Your task to perform on an android device: toggle improve location accuracy Image 0: 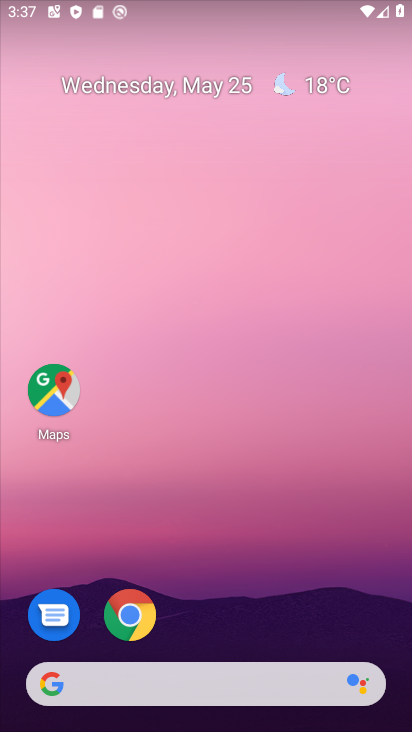
Step 0: drag from (315, 645) to (236, 14)
Your task to perform on an android device: toggle improve location accuracy Image 1: 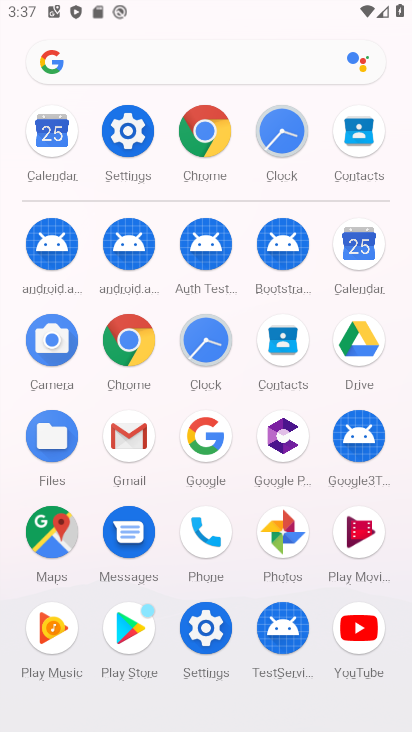
Step 1: click (114, 139)
Your task to perform on an android device: toggle improve location accuracy Image 2: 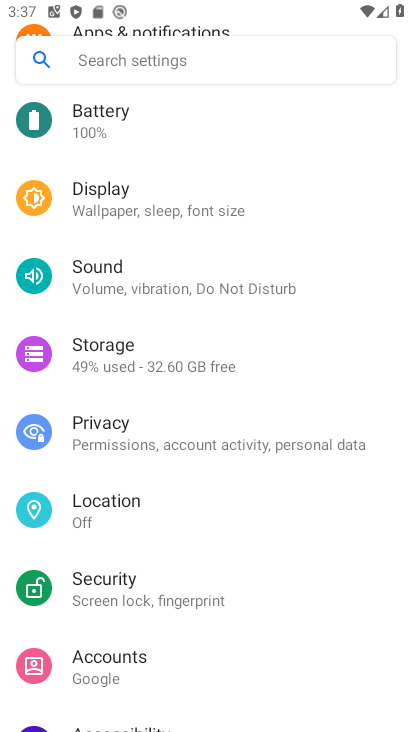
Step 2: click (147, 503)
Your task to perform on an android device: toggle improve location accuracy Image 3: 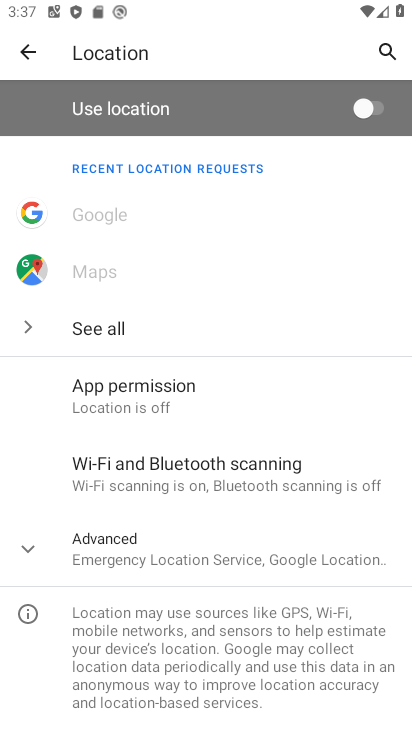
Step 3: click (147, 503)
Your task to perform on an android device: toggle improve location accuracy Image 4: 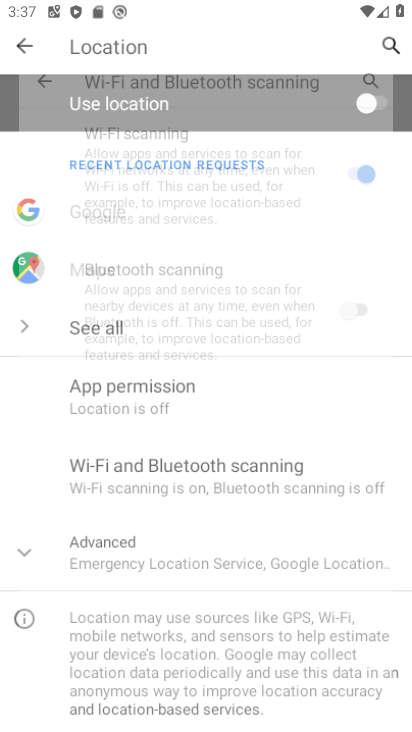
Step 4: click (147, 503)
Your task to perform on an android device: toggle improve location accuracy Image 5: 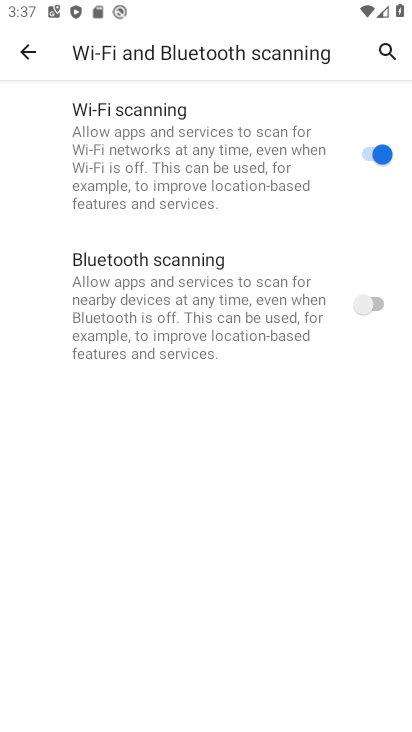
Step 5: click (21, 61)
Your task to perform on an android device: toggle improve location accuracy Image 6: 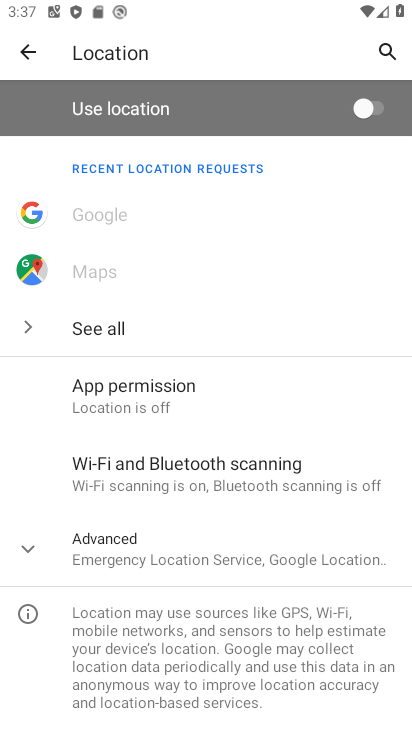
Step 6: click (20, 61)
Your task to perform on an android device: toggle improve location accuracy Image 7: 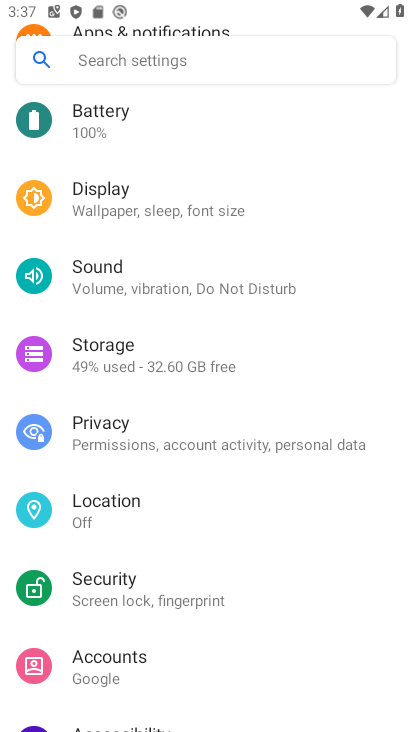
Step 7: click (151, 522)
Your task to perform on an android device: toggle improve location accuracy Image 8: 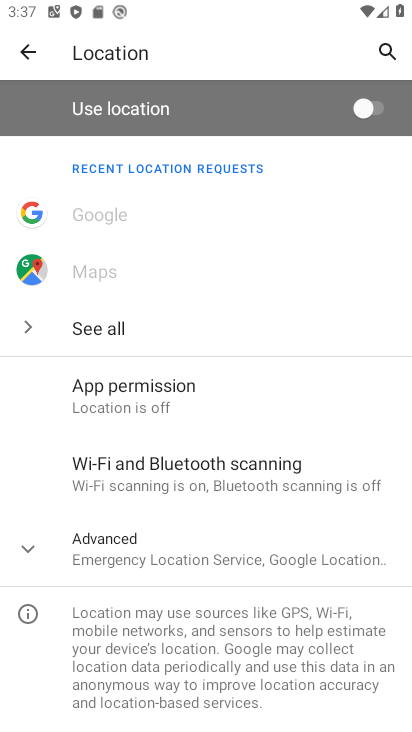
Step 8: click (167, 567)
Your task to perform on an android device: toggle improve location accuracy Image 9: 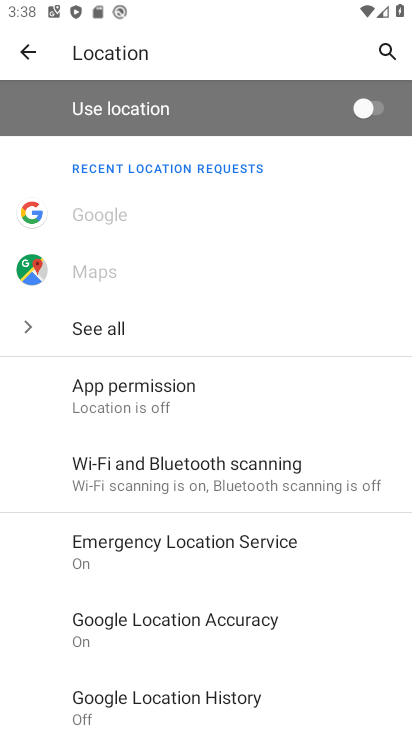
Step 9: drag from (167, 566) to (143, 614)
Your task to perform on an android device: toggle improve location accuracy Image 10: 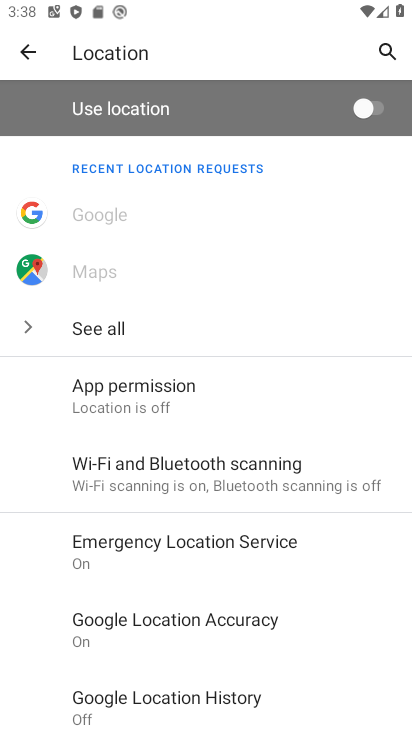
Step 10: click (249, 603)
Your task to perform on an android device: toggle improve location accuracy Image 11: 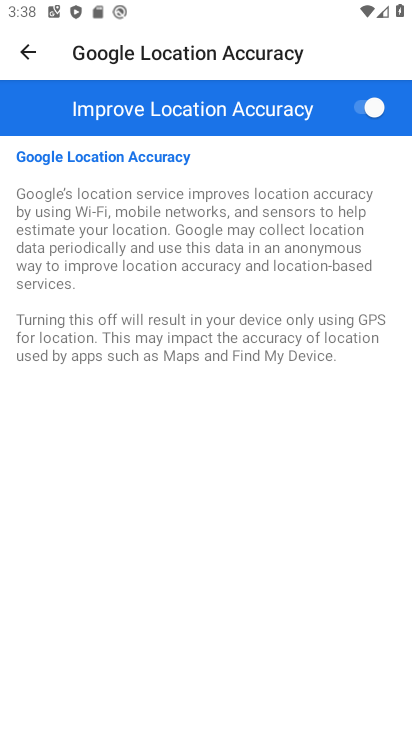
Step 11: click (250, 596)
Your task to perform on an android device: toggle improve location accuracy Image 12: 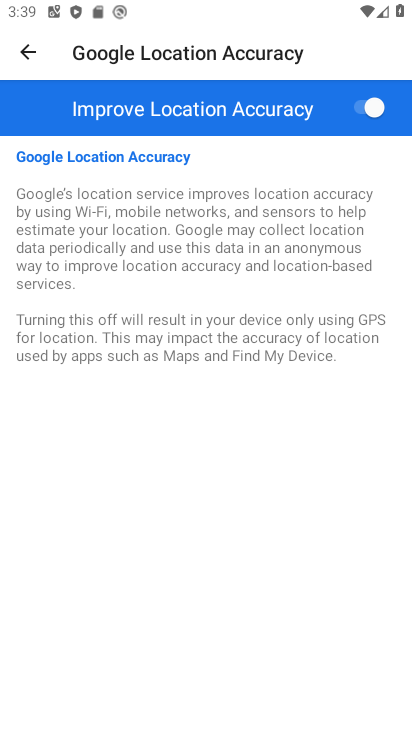
Step 12: click (368, 104)
Your task to perform on an android device: toggle improve location accuracy Image 13: 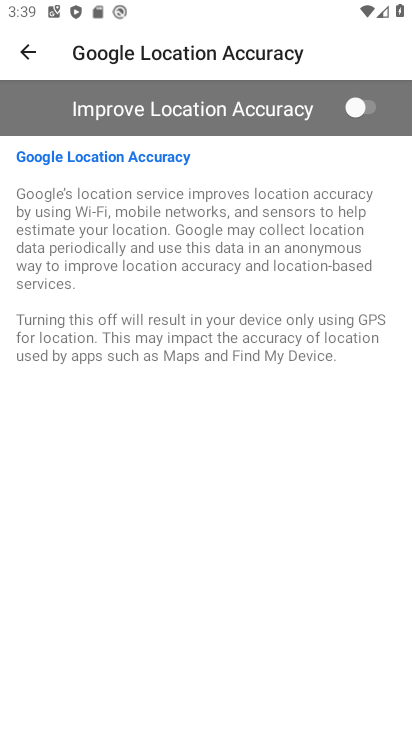
Step 13: task complete